Your task to perform on an android device: toggle wifi Image 0: 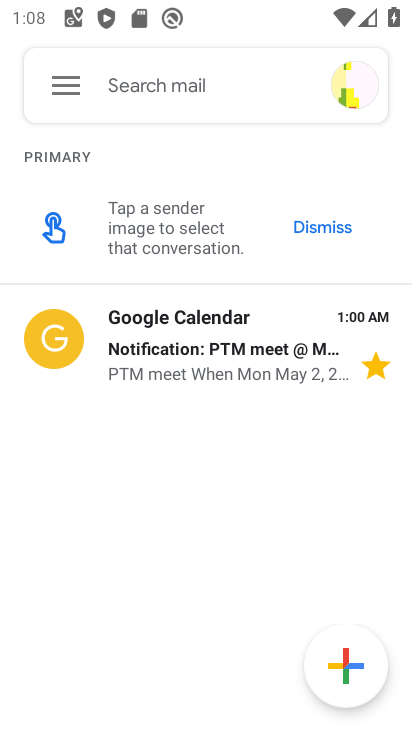
Step 0: press back button
Your task to perform on an android device: toggle wifi Image 1: 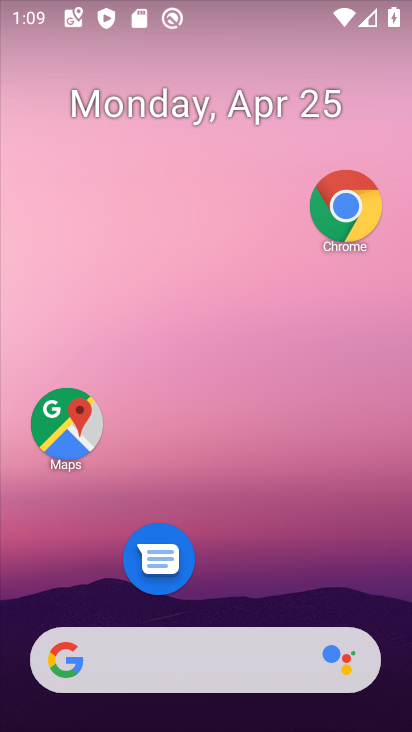
Step 1: drag from (133, 11) to (109, 641)
Your task to perform on an android device: toggle wifi Image 2: 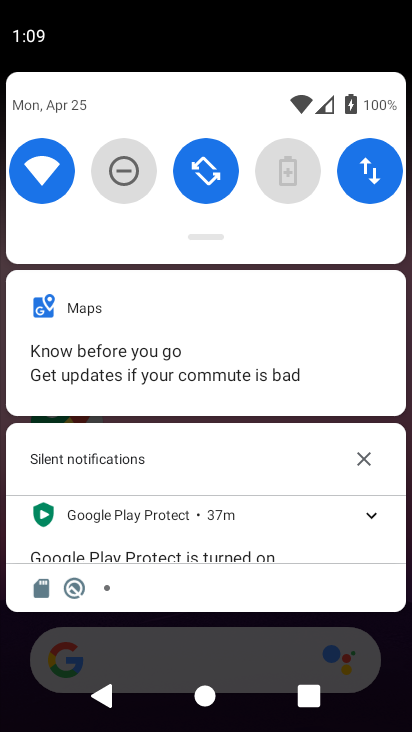
Step 2: click (50, 173)
Your task to perform on an android device: toggle wifi Image 3: 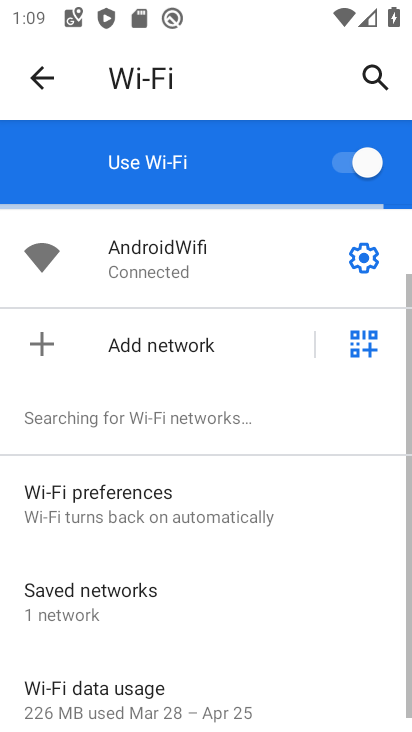
Step 3: click (370, 161)
Your task to perform on an android device: toggle wifi Image 4: 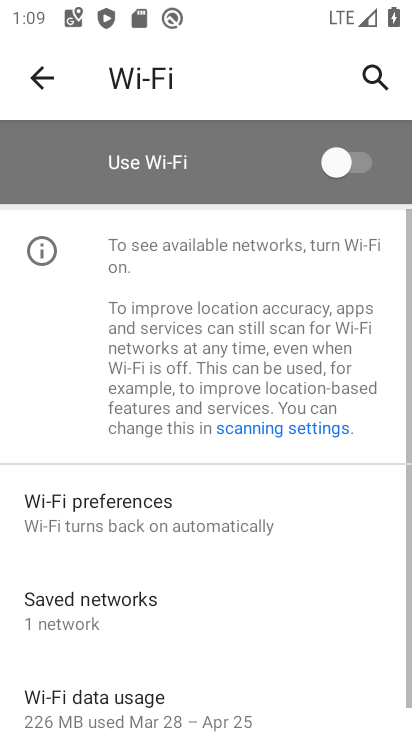
Step 4: task complete